Your task to perform on an android device: Go to privacy settings Image 0: 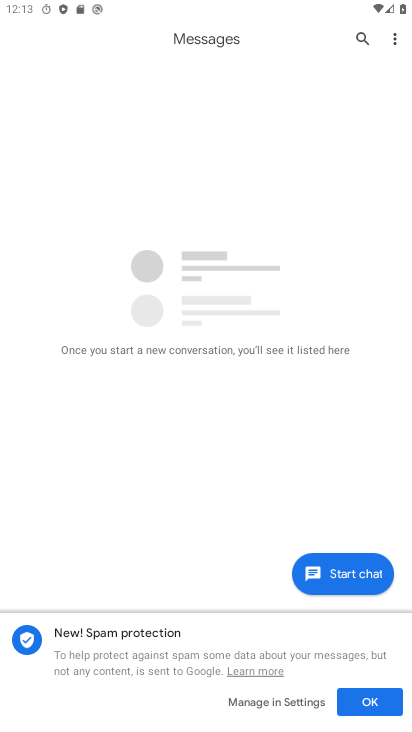
Step 0: press home button
Your task to perform on an android device: Go to privacy settings Image 1: 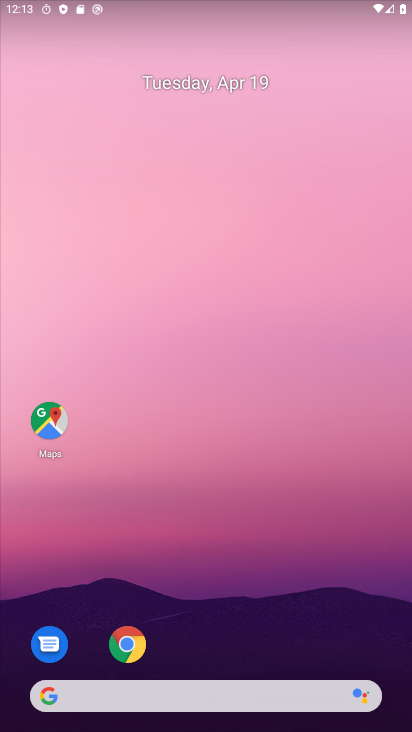
Step 1: drag from (211, 604) to (212, 169)
Your task to perform on an android device: Go to privacy settings Image 2: 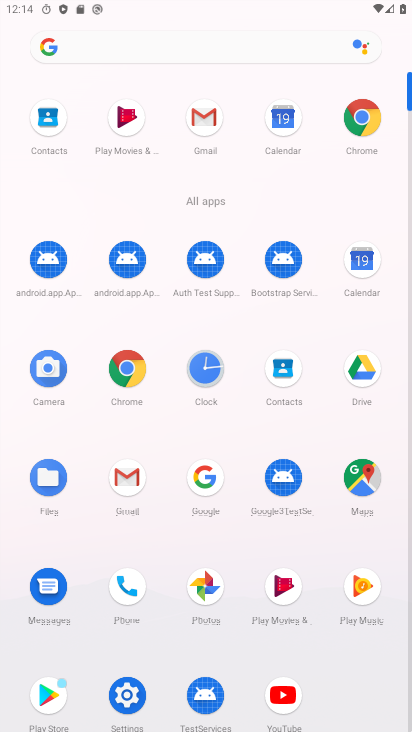
Step 2: click (353, 105)
Your task to perform on an android device: Go to privacy settings Image 3: 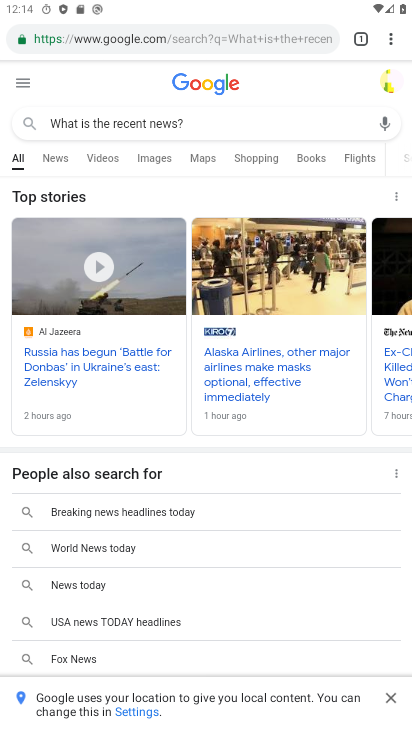
Step 3: click (391, 35)
Your task to perform on an android device: Go to privacy settings Image 4: 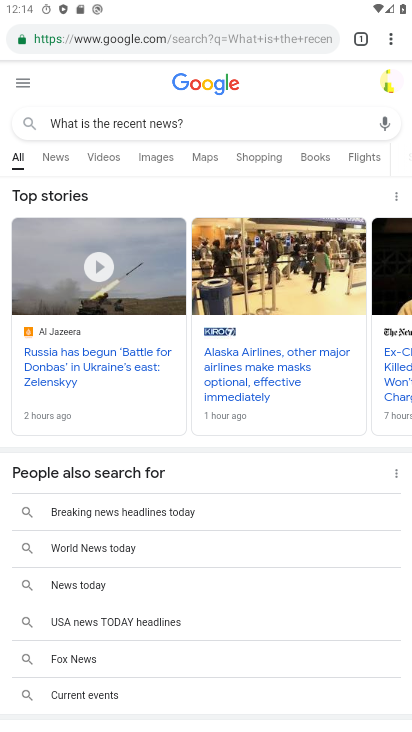
Step 4: click (390, 36)
Your task to perform on an android device: Go to privacy settings Image 5: 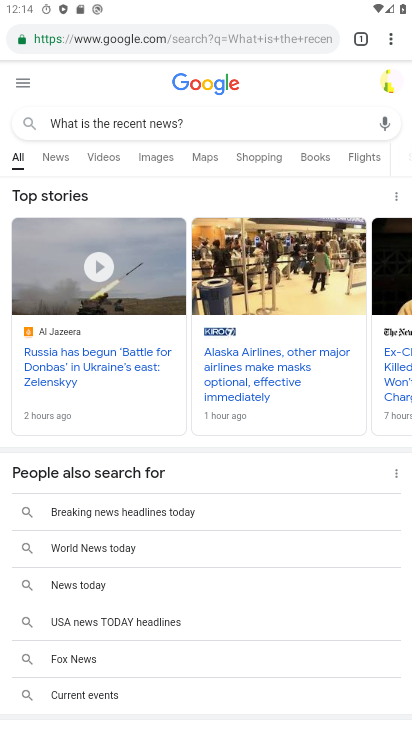
Step 5: click (385, 45)
Your task to perform on an android device: Go to privacy settings Image 6: 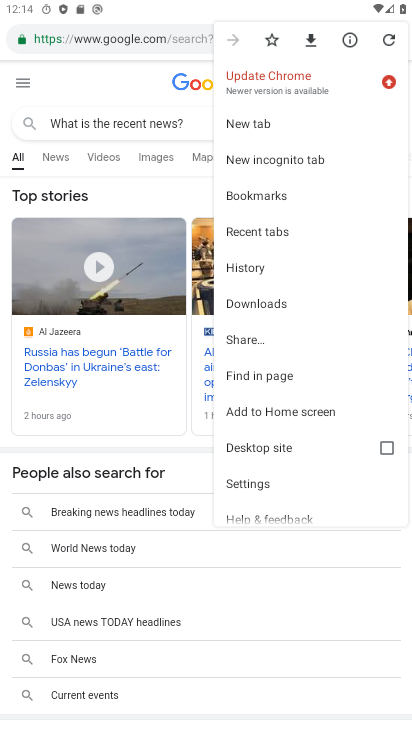
Step 6: click (262, 479)
Your task to perform on an android device: Go to privacy settings Image 7: 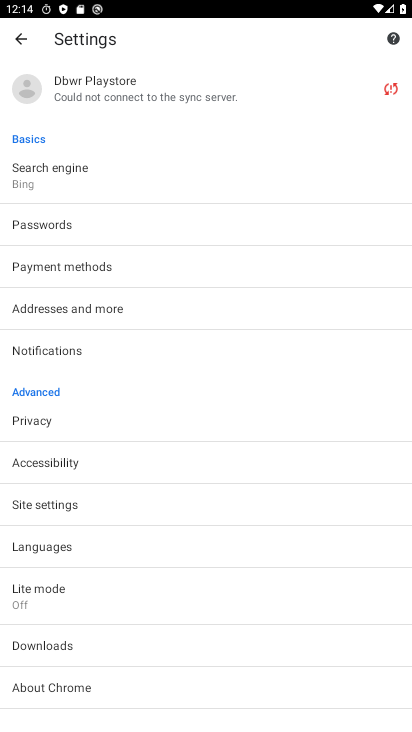
Step 7: click (133, 416)
Your task to perform on an android device: Go to privacy settings Image 8: 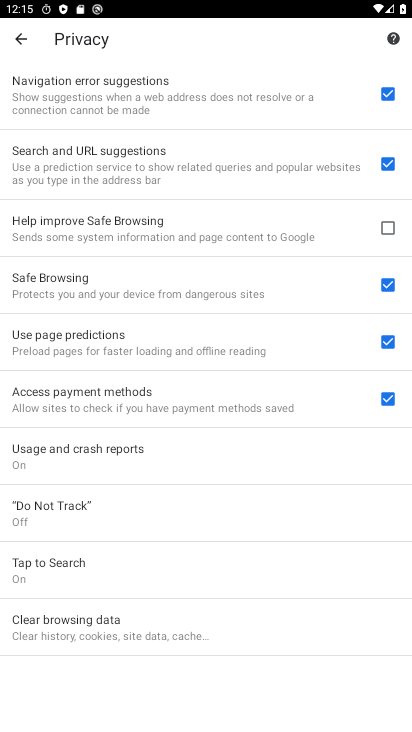
Step 8: task complete